Your task to perform on an android device: Go to CNN.com Image 0: 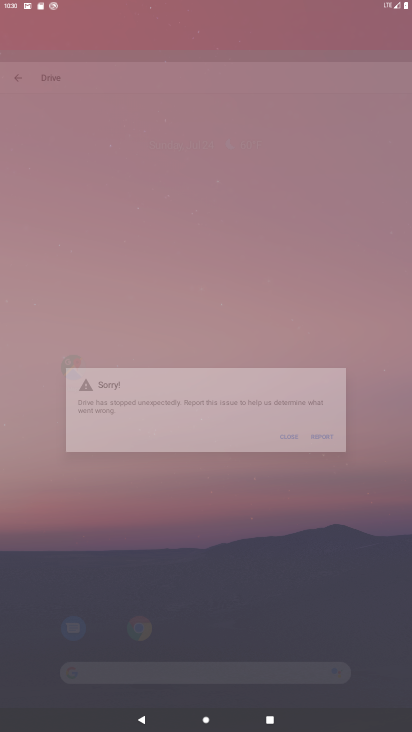
Step 0: drag from (305, 636) to (223, 114)
Your task to perform on an android device: Go to CNN.com Image 1: 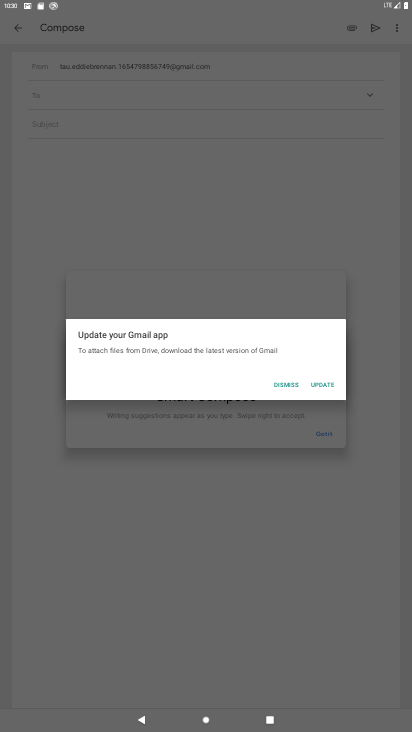
Step 1: press home button
Your task to perform on an android device: Go to CNN.com Image 2: 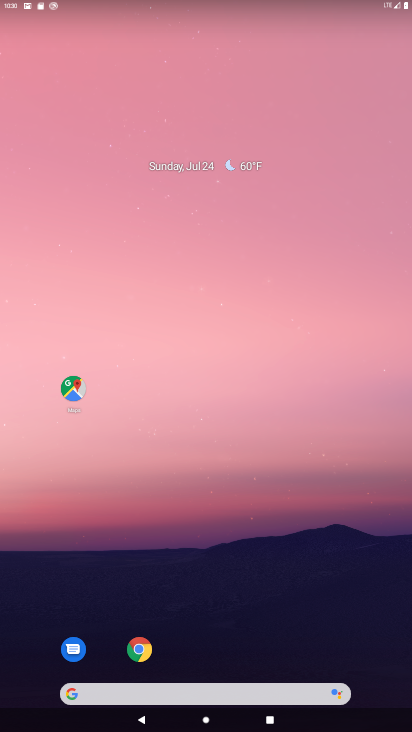
Step 2: click (145, 651)
Your task to perform on an android device: Go to CNN.com Image 3: 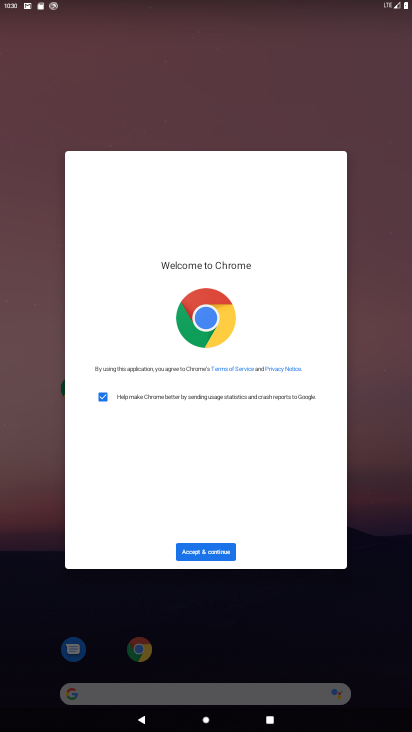
Step 3: click (205, 553)
Your task to perform on an android device: Go to CNN.com Image 4: 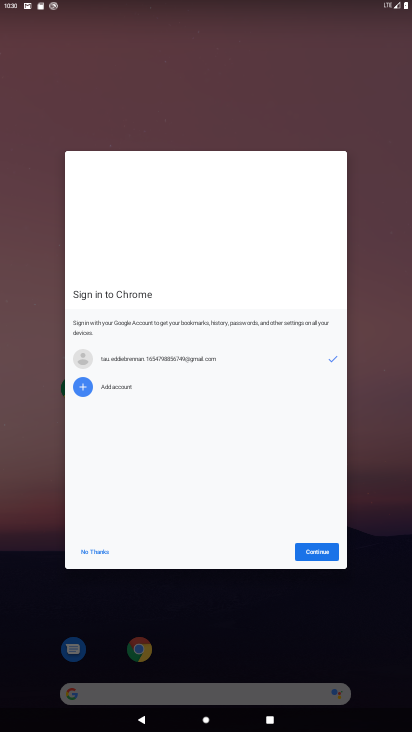
Step 4: click (313, 555)
Your task to perform on an android device: Go to CNN.com Image 5: 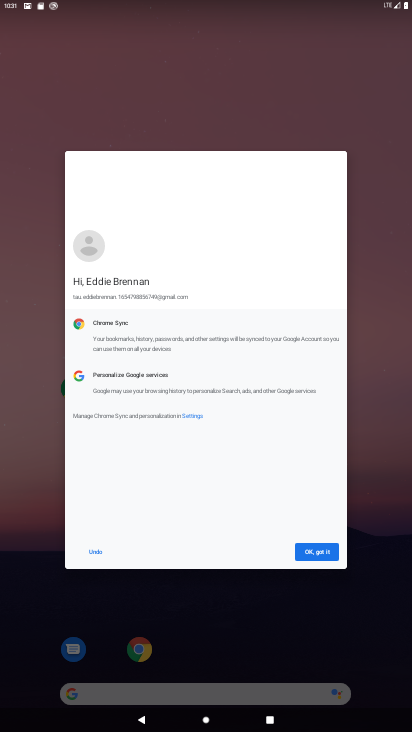
Step 5: click (313, 555)
Your task to perform on an android device: Go to CNN.com Image 6: 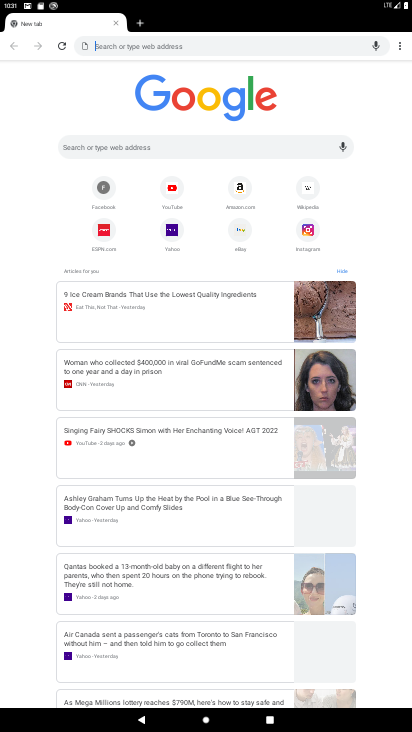
Step 6: click (241, 151)
Your task to perform on an android device: Go to CNN.com Image 7: 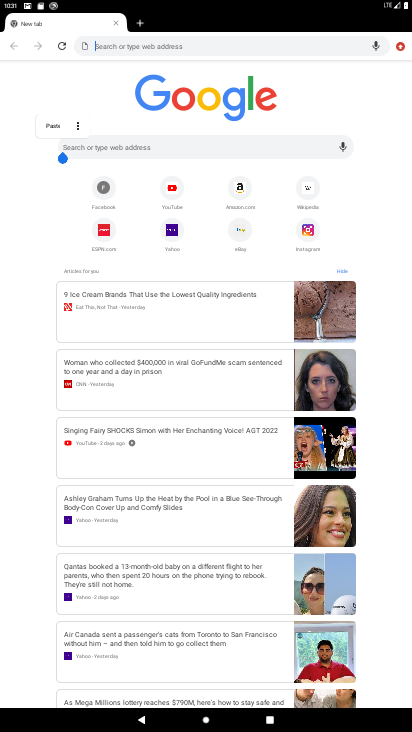
Step 7: click (182, 40)
Your task to perform on an android device: Go to CNN.com Image 8: 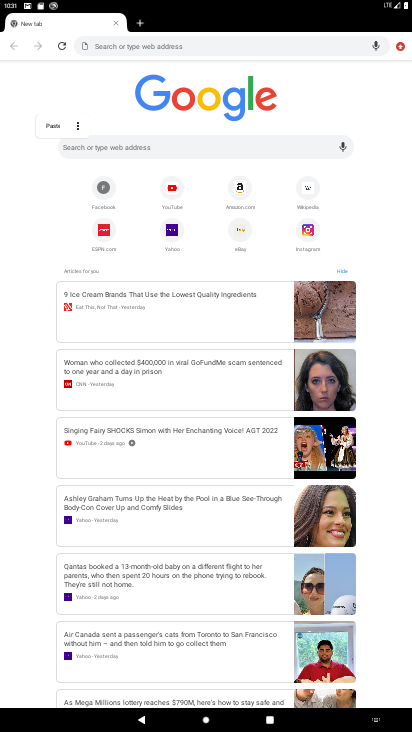
Step 8: click (182, 40)
Your task to perform on an android device: Go to CNN.com Image 9: 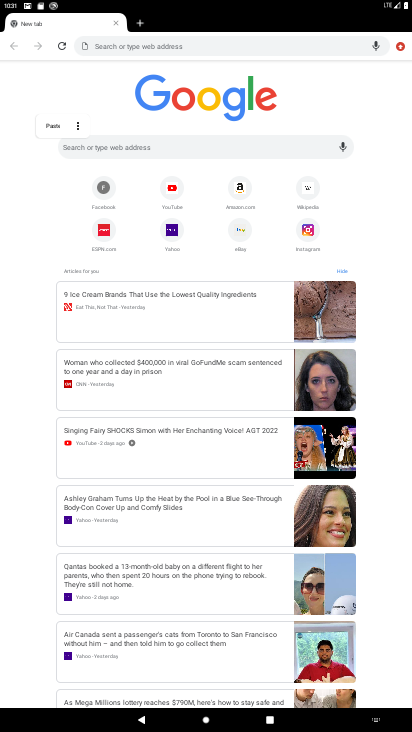
Step 9: click (182, 40)
Your task to perform on an android device: Go to CNN.com Image 10: 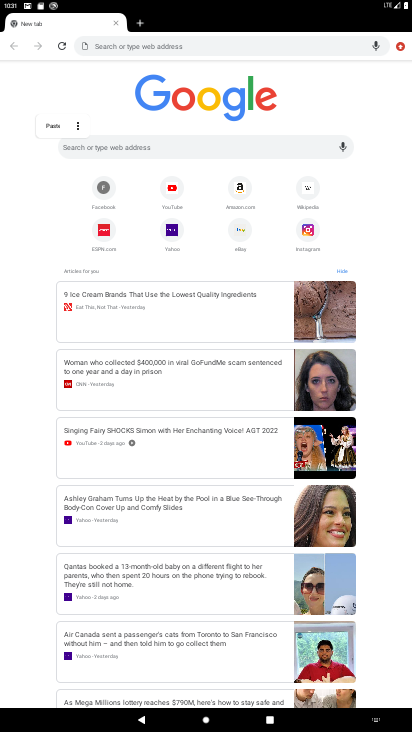
Step 10: type "cnn.com"
Your task to perform on an android device: Go to CNN.com Image 11: 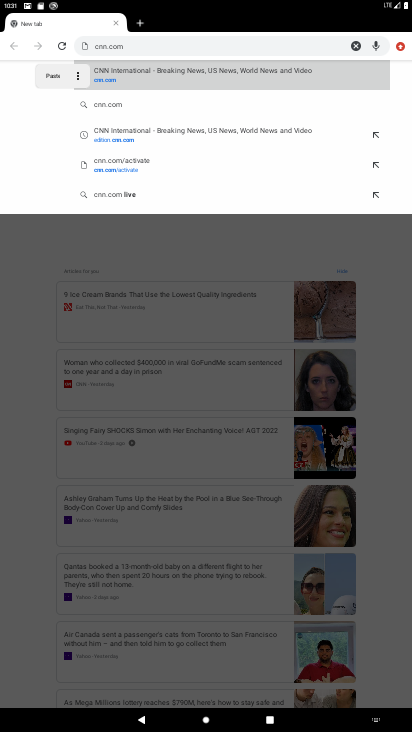
Step 11: click (291, 79)
Your task to perform on an android device: Go to CNN.com Image 12: 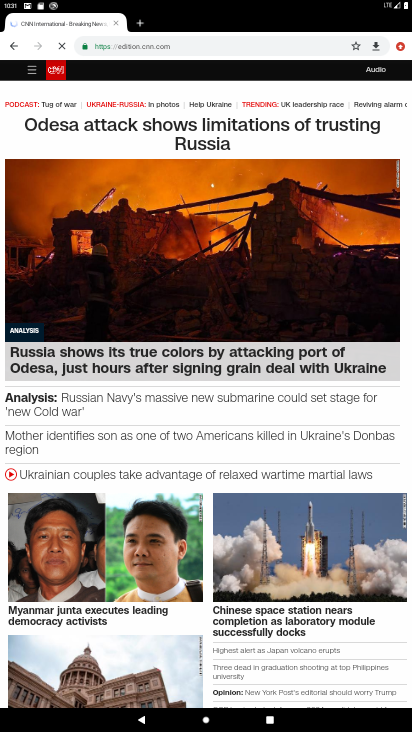
Step 12: task complete